Your task to perform on an android device: Open settings Image 0: 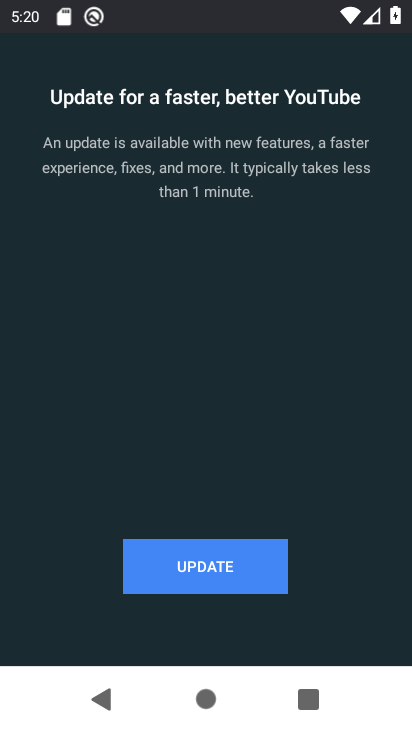
Step 0: press home button
Your task to perform on an android device: Open settings Image 1: 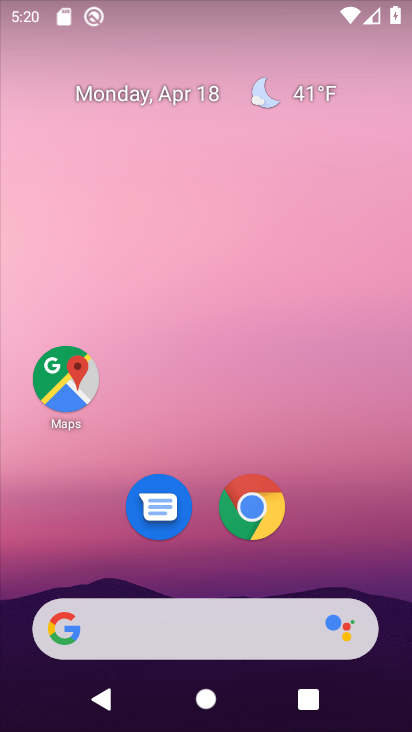
Step 1: drag from (287, 523) to (247, 37)
Your task to perform on an android device: Open settings Image 2: 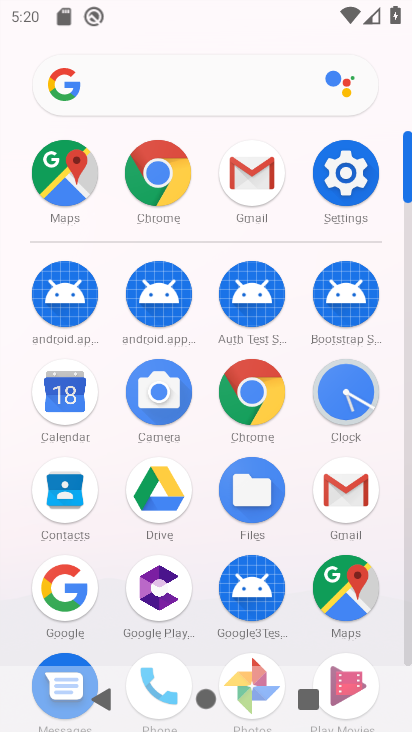
Step 2: click (353, 160)
Your task to perform on an android device: Open settings Image 3: 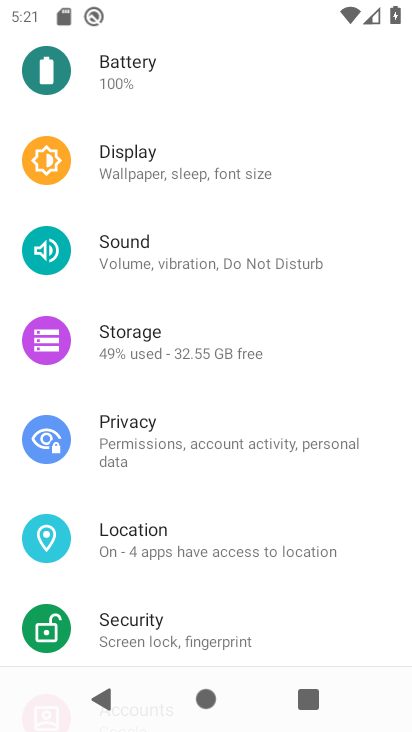
Step 3: task complete